Your task to perform on an android device: Is it going to rain tomorrow? Image 0: 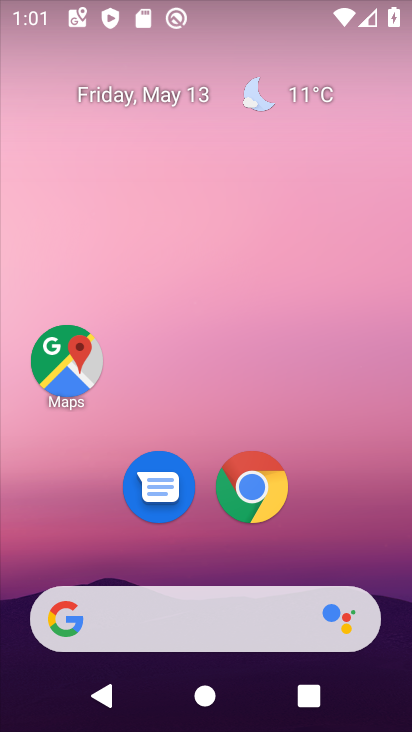
Step 0: click (257, 490)
Your task to perform on an android device: Is it going to rain tomorrow? Image 1: 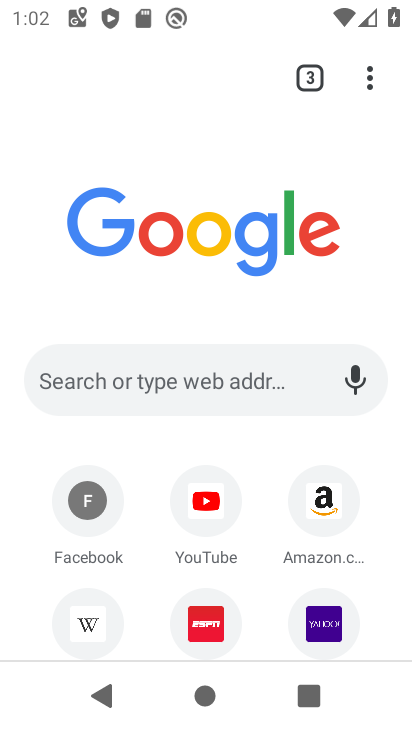
Step 1: click (234, 392)
Your task to perform on an android device: Is it going to rain tomorrow? Image 2: 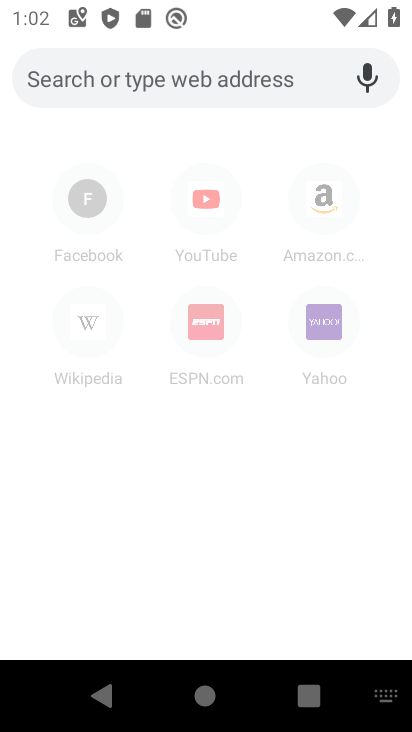
Step 2: type "is it going to rain tomorrow"
Your task to perform on an android device: Is it going to rain tomorrow? Image 3: 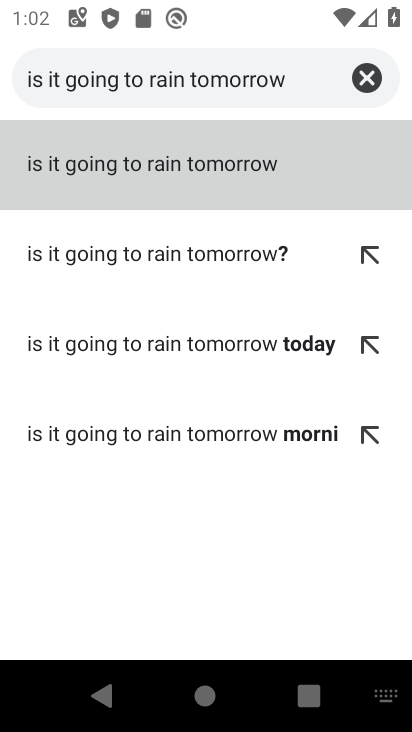
Step 3: click (190, 159)
Your task to perform on an android device: Is it going to rain tomorrow? Image 4: 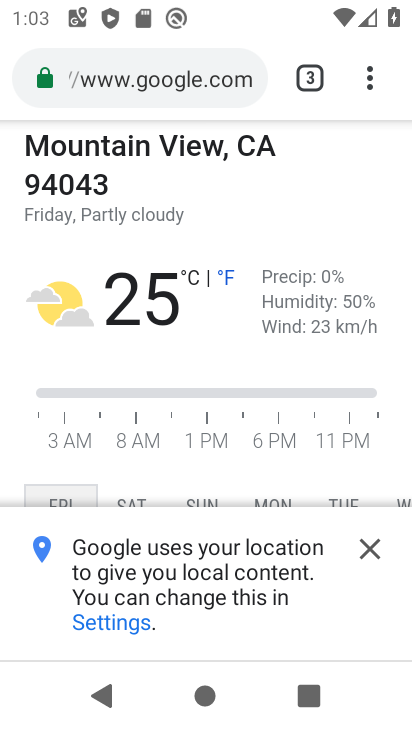
Step 4: click (359, 551)
Your task to perform on an android device: Is it going to rain tomorrow? Image 5: 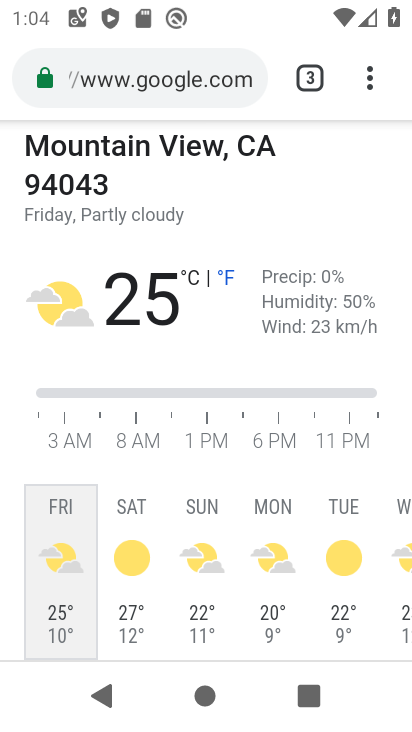
Step 5: task complete